Your task to perform on an android device: change alarm snooze length Image 0: 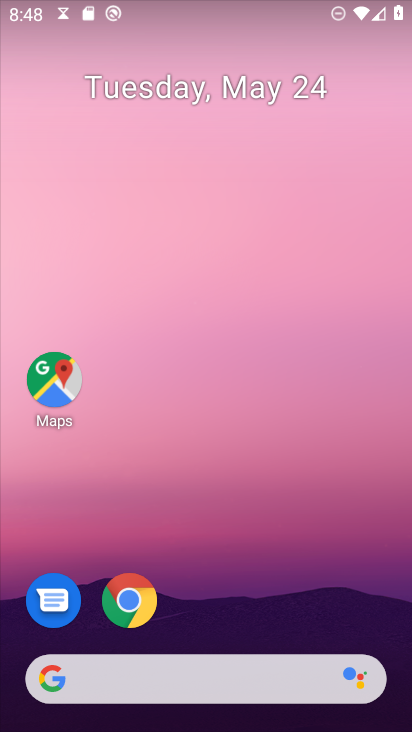
Step 0: drag from (268, 520) to (266, 100)
Your task to perform on an android device: change alarm snooze length Image 1: 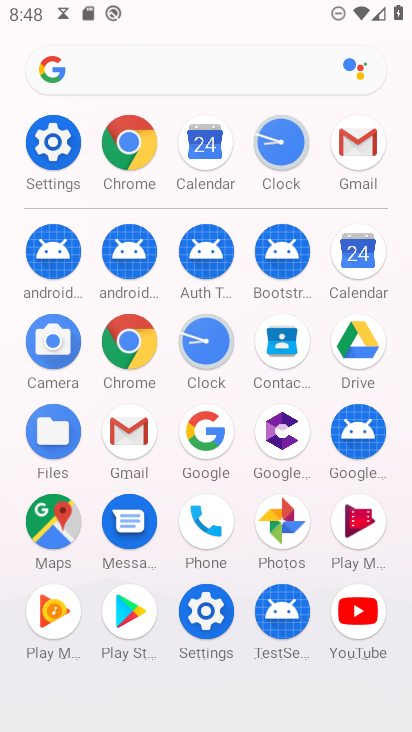
Step 1: click (208, 338)
Your task to perform on an android device: change alarm snooze length Image 2: 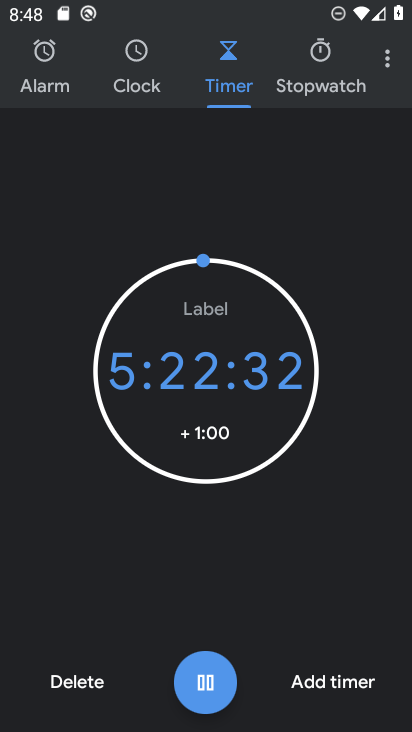
Step 2: click (391, 63)
Your task to perform on an android device: change alarm snooze length Image 3: 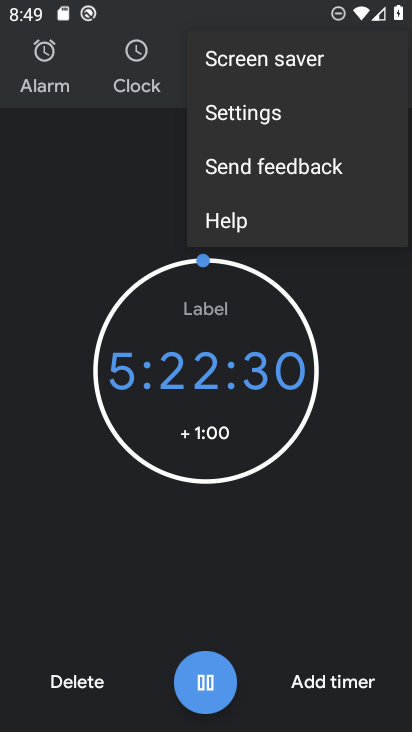
Step 3: click (254, 109)
Your task to perform on an android device: change alarm snooze length Image 4: 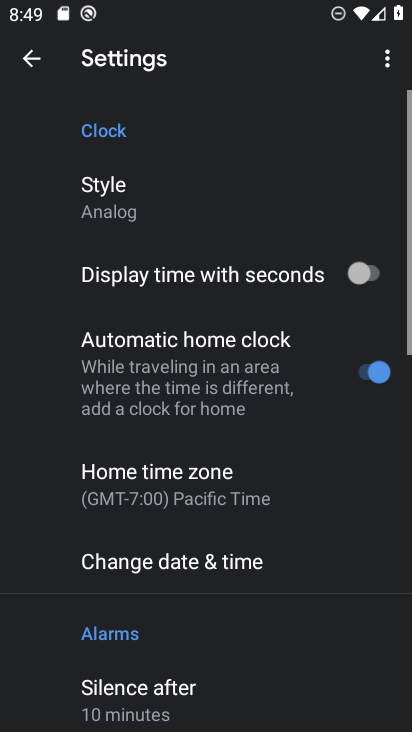
Step 4: drag from (240, 623) to (282, 174)
Your task to perform on an android device: change alarm snooze length Image 5: 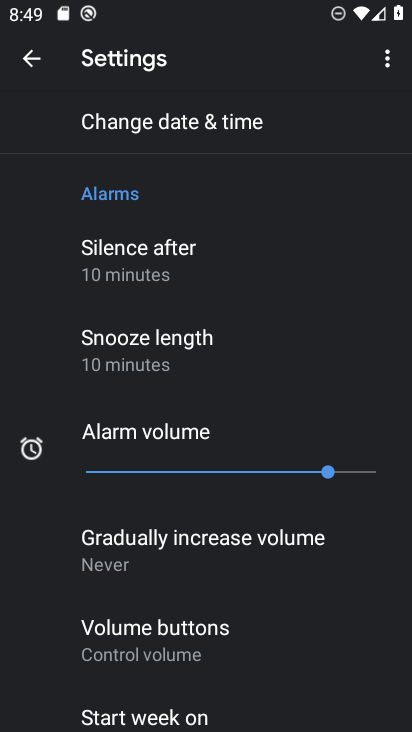
Step 5: click (188, 338)
Your task to perform on an android device: change alarm snooze length Image 6: 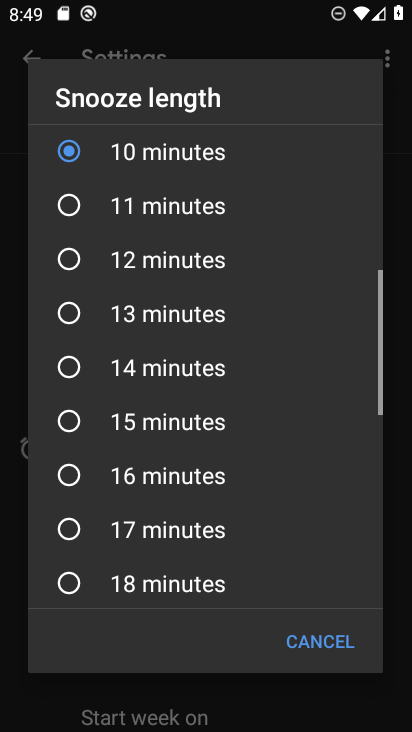
Step 6: click (98, 192)
Your task to perform on an android device: change alarm snooze length Image 7: 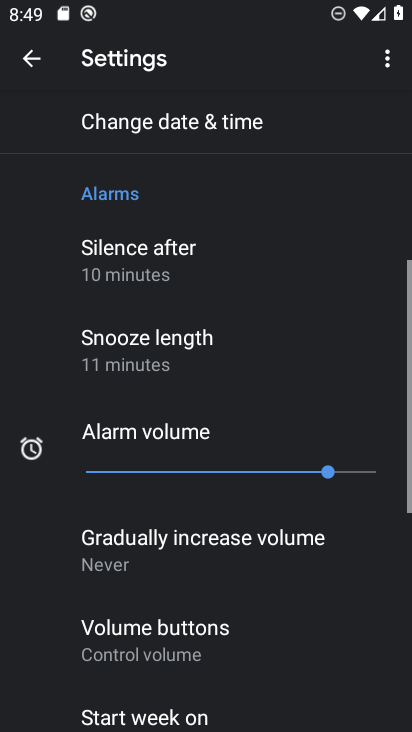
Step 7: task complete